Your task to perform on an android device: Show me recent news Image 0: 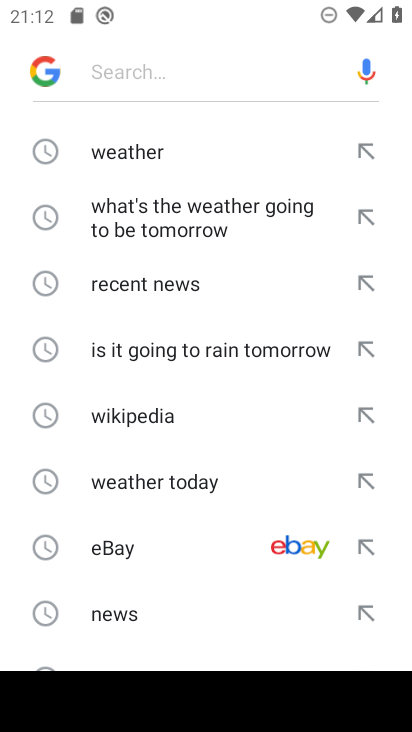
Step 0: press home button
Your task to perform on an android device: Show me recent news Image 1: 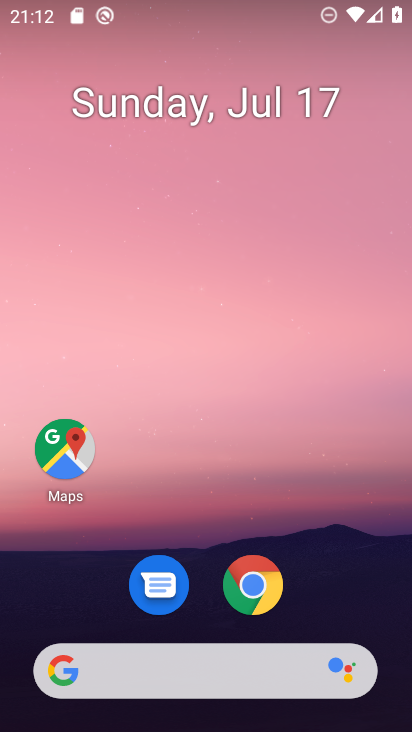
Step 1: click (170, 660)
Your task to perform on an android device: Show me recent news Image 2: 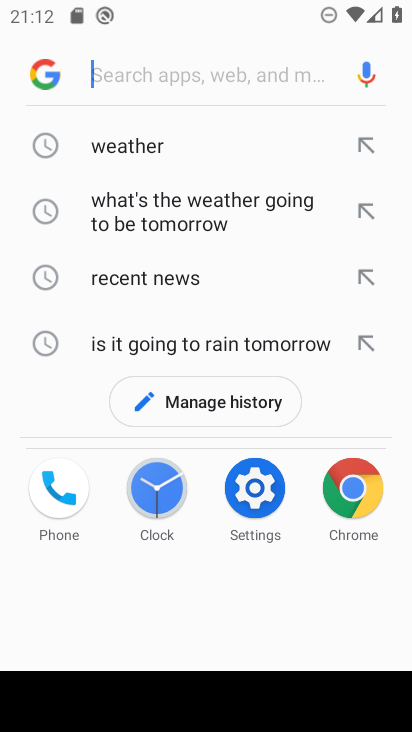
Step 2: click (166, 276)
Your task to perform on an android device: Show me recent news Image 3: 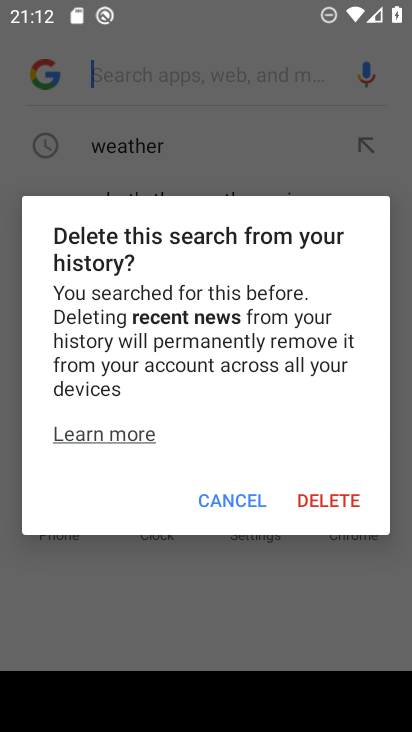
Step 3: click (221, 507)
Your task to perform on an android device: Show me recent news Image 4: 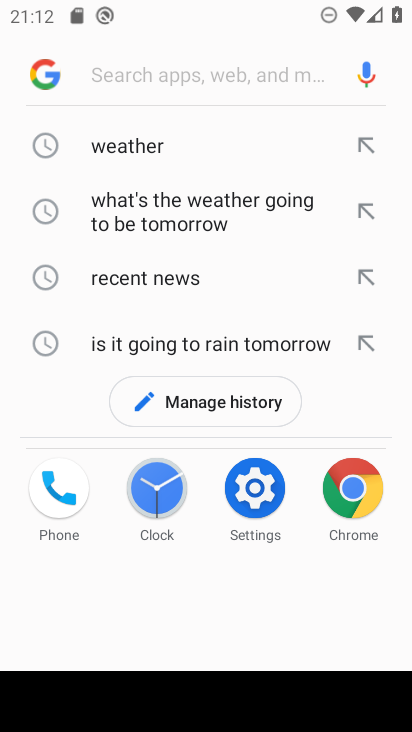
Step 4: click (171, 282)
Your task to perform on an android device: Show me recent news Image 5: 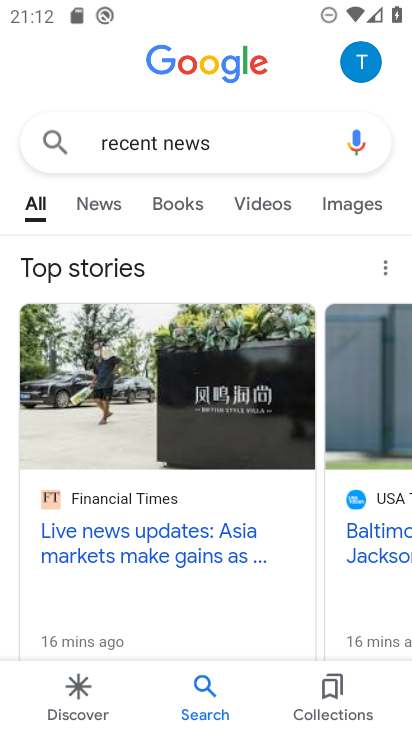
Step 5: click (101, 203)
Your task to perform on an android device: Show me recent news Image 6: 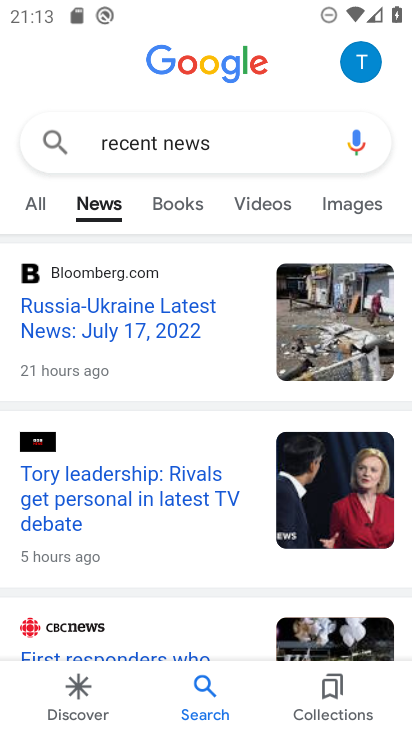
Step 6: task complete